Your task to perform on an android device: toggle javascript in the chrome app Image 0: 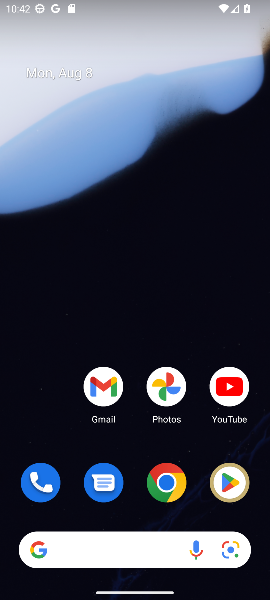
Step 0: click (158, 478)
Your task to perform on an android device: toggle javascript in the chrome app Image 1: 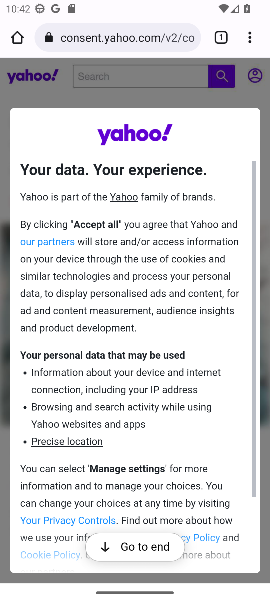
Step 1: click (248, 34)
Your task to perform on an android device: toggle javascript in the chrome app Image 2: 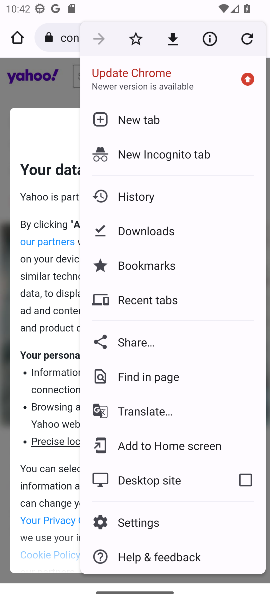
Step 2: click (138, 517)
Your task to perform on an android device: toggle javascript in the chrome app Image 3: 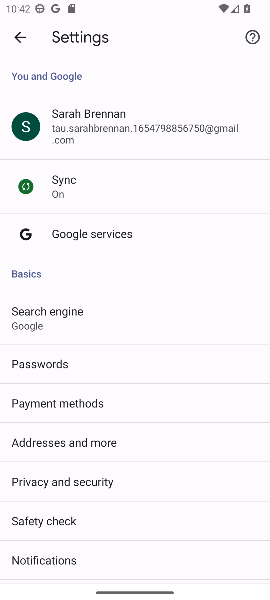
Step 3: drag from (125, 487) to (124, 17)
Your task to perform on an android device: toggle javascript in the chrome app Image 4: 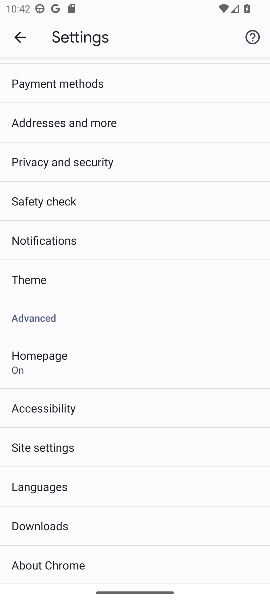
Step 4: click (63, 446)
Your task to perform on an android device: toggle javascript in the chrome app Image 5: 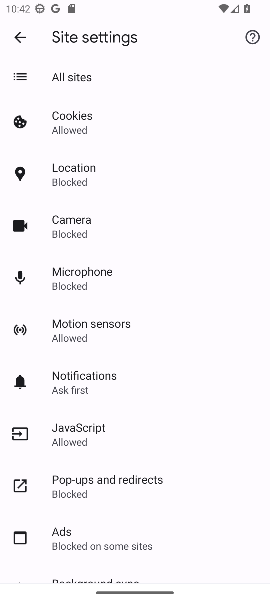
Step 5: click (120, 426)
Your task to perform on an android device: toggle javascript in the chrome app Image 6: 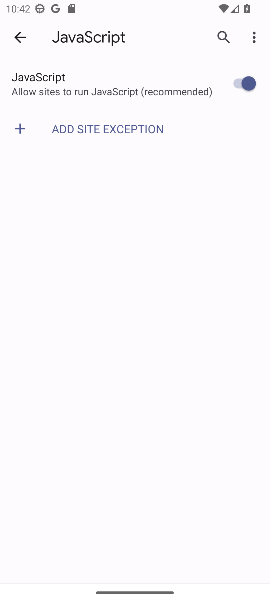
Step 6: click (245, 81)
Your task to perform on an android device: toggle javascript in the chrome app Image 7: 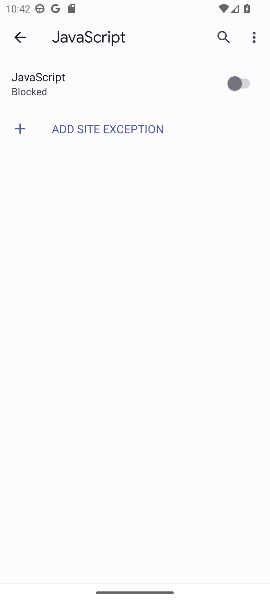
Step 7: task complete